Your task to perform on an android device: Open Reddit.com Image 0: 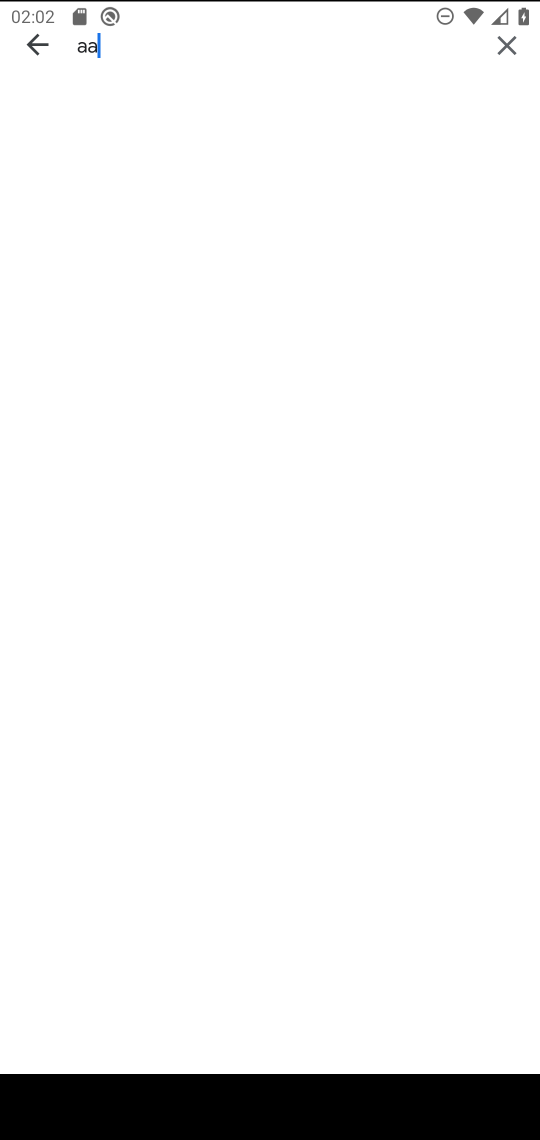
Step 0: press home button
Your task to perform on an android device: Open Reddit.com Image 1: 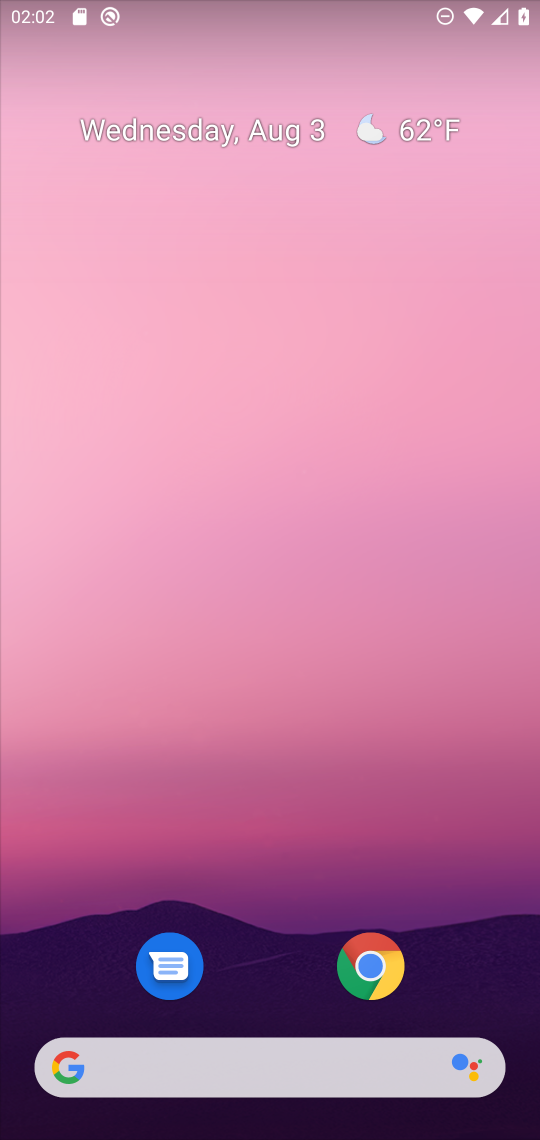
Step 1: click (370, 952)
Your task to perform on an android device: Open Reddit.com Image 2: 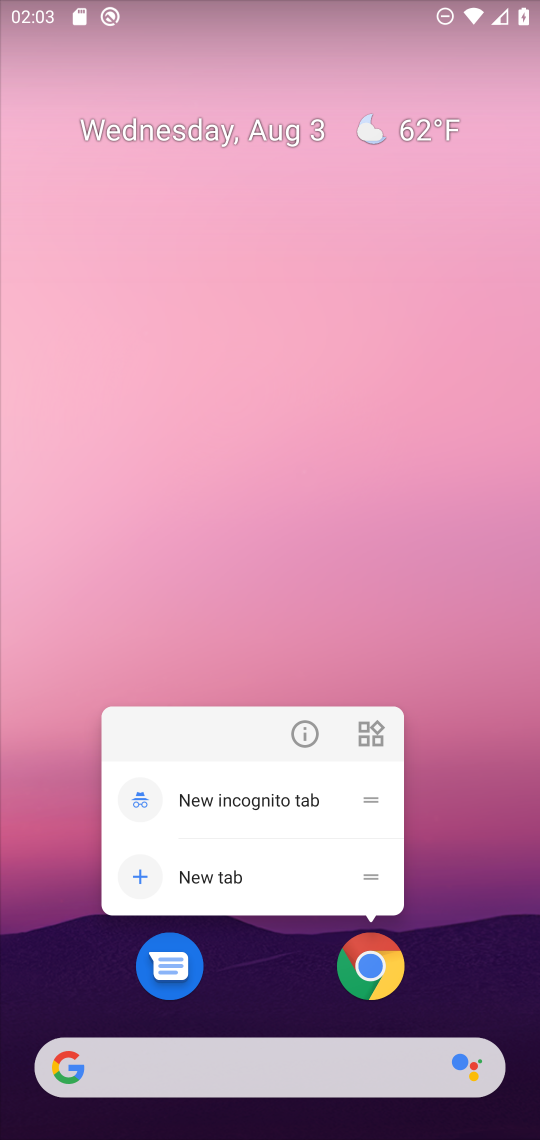
Step 2: click (376, 954)
Your task to perform on an android device: Open Reddit.com Image 3: 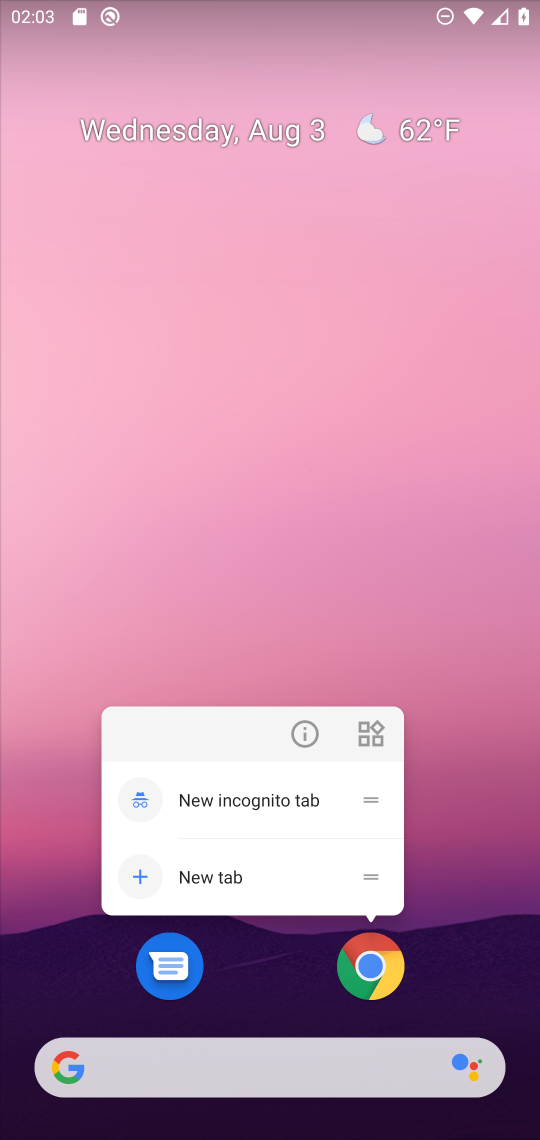
Step 3: click (376, 954)
Your task to perform on an android device: Open Reddit.com Image 4: 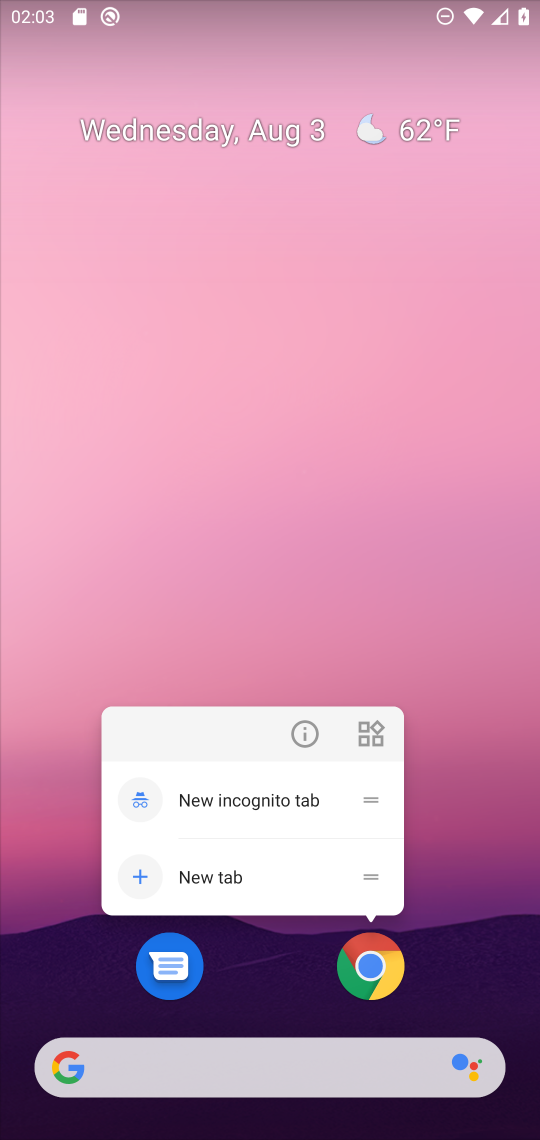
Step 4: click (376, 954)
Your task to perform on an android device: Open Reddit.com Image 5: 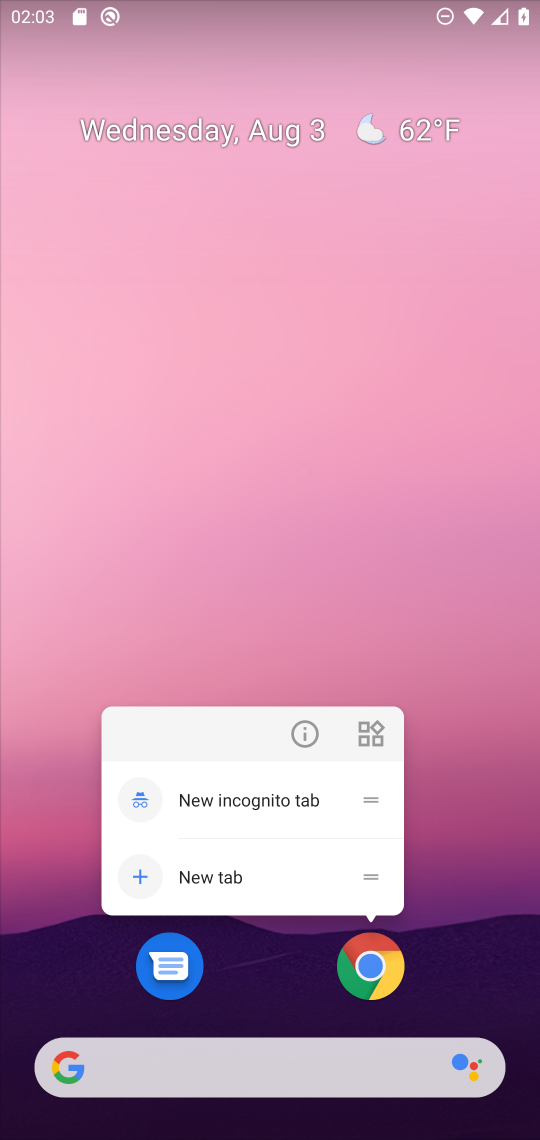
Step 5: click (376, 954)
Your task to perform on an android device: Open Reddit.com Image 6: 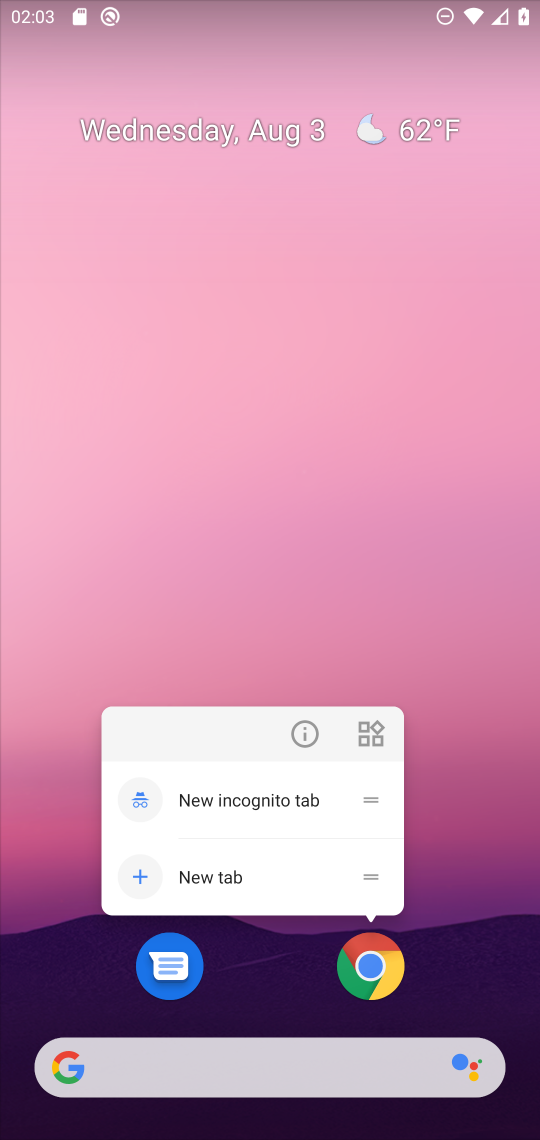
Step 6: click (376, 954)
Your task to perform on an android device: Open Reddit.com Image 7: 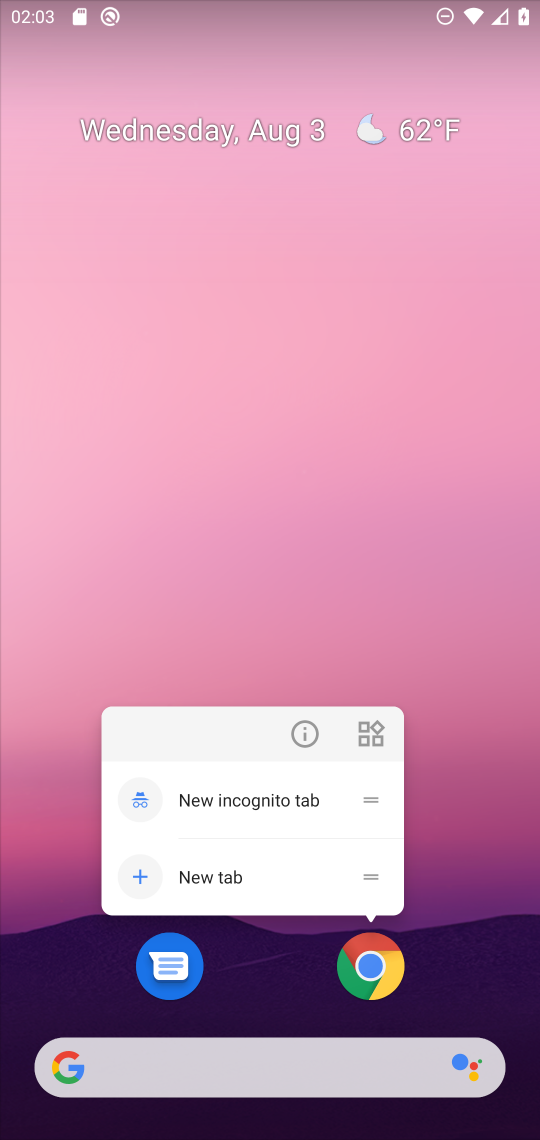
Step 7: click (365, 967)
Your task to perform on an android device: Open Reddit.com Image 8: 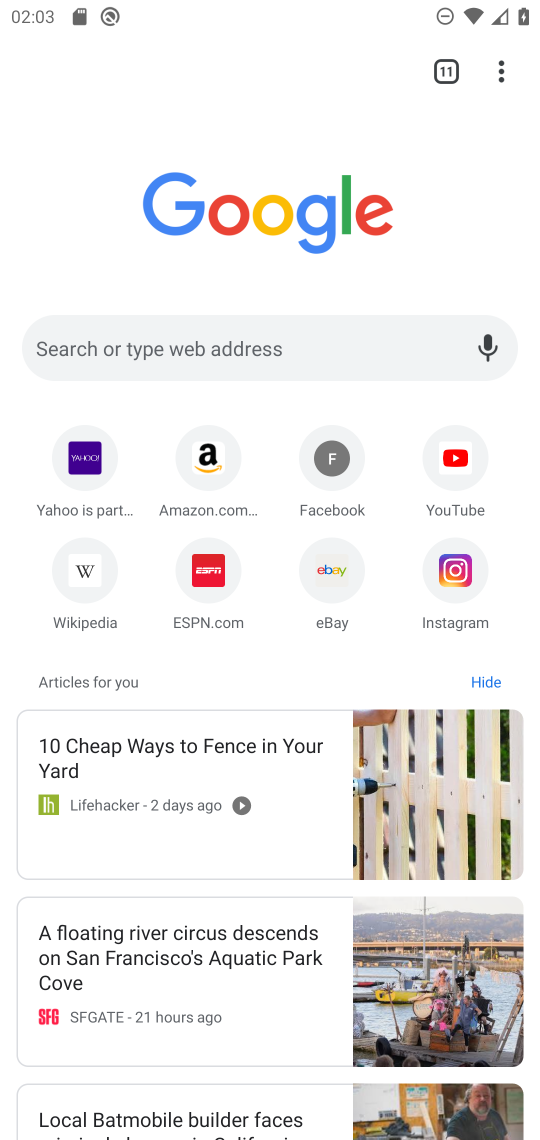
Step 8: click (365, 967)
Your task to perform on an android device: Open Reddit.com Image 9: 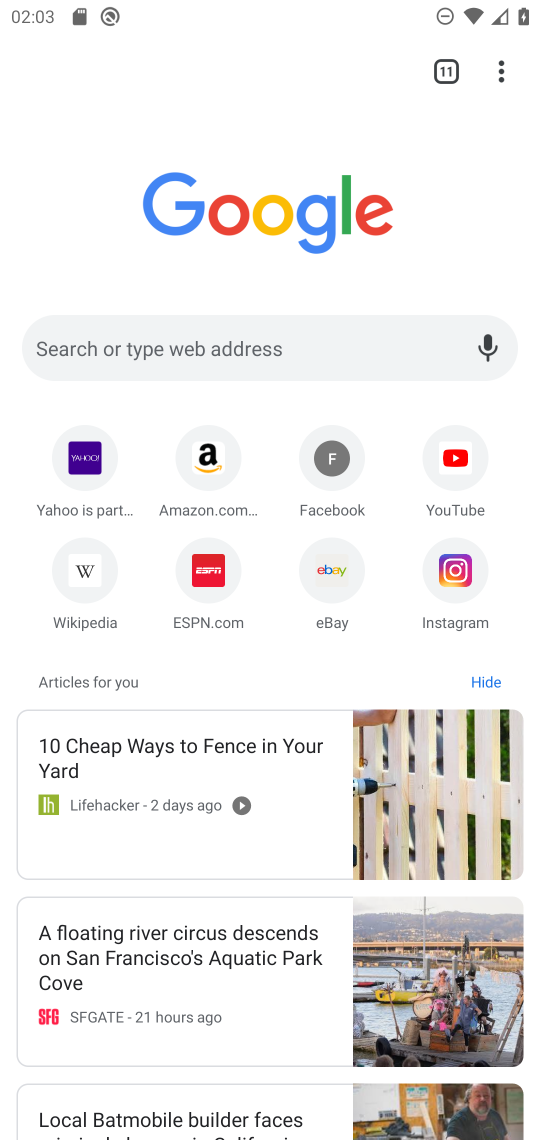
Step 9: click (336, 352)
Your task to perform on an android device: Open Reddit.com Image 10: 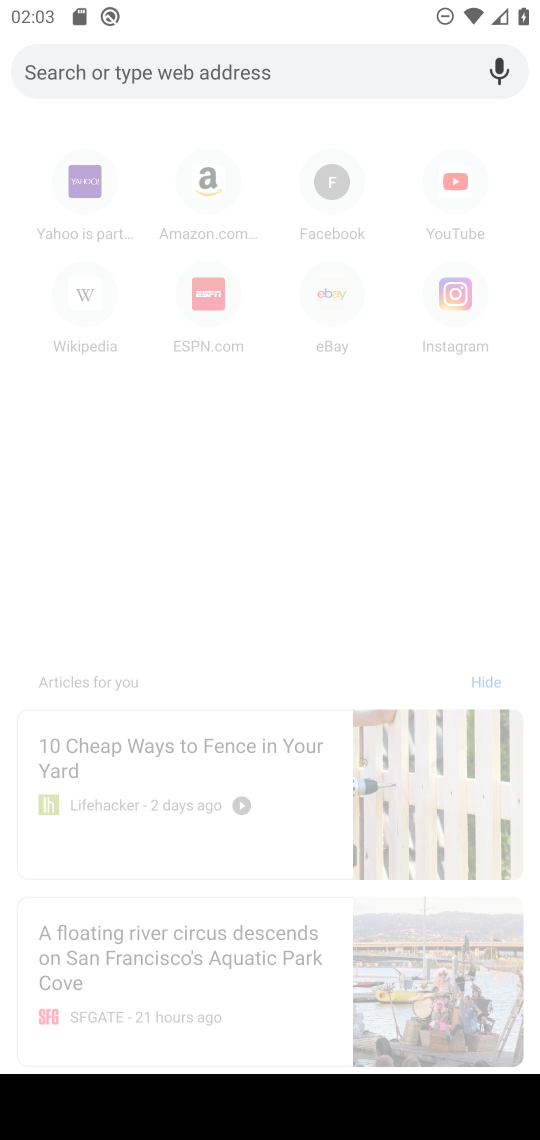
Step 10: type "Reddit.com"
Your task to perform on an android device: Open Reddit.com Image 11: 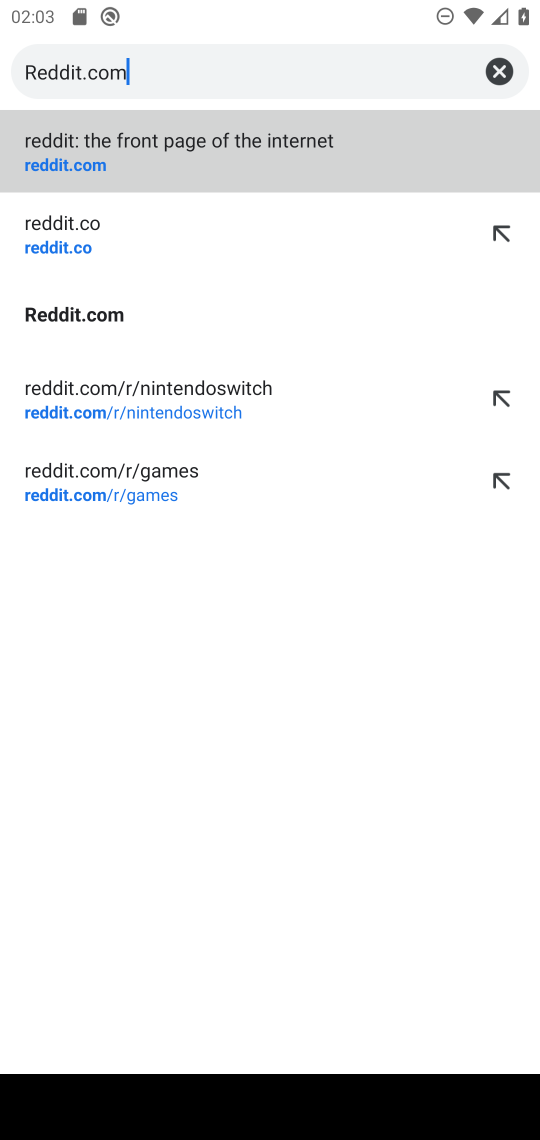
Step 11: type ""
Your task to perform on an android device: Open Reddit.com Image 12: 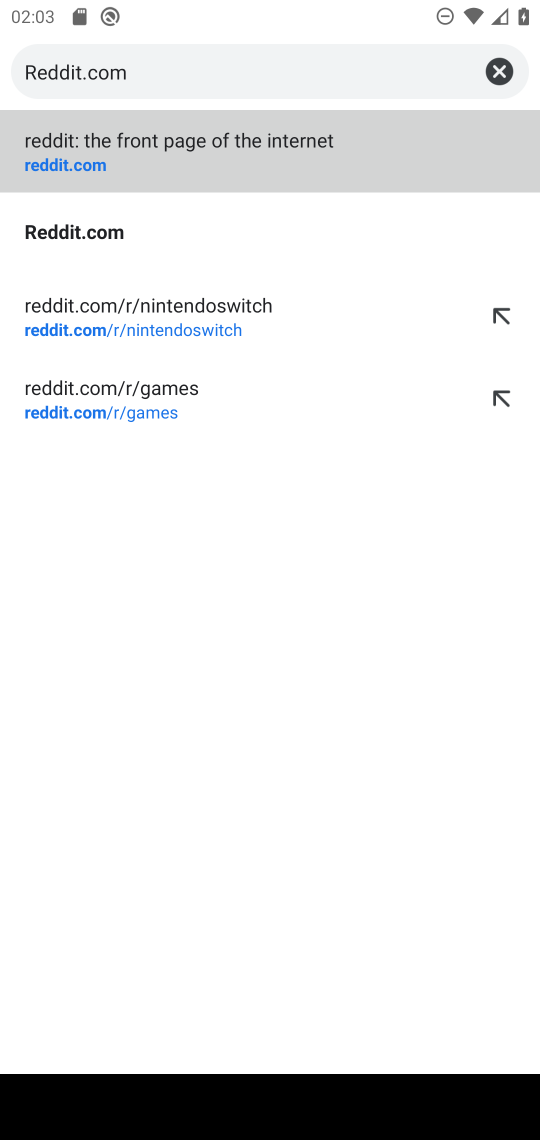
Step 12: click (225, 168)
Your task to perform on an android device: Open Reddit.com Image 13: 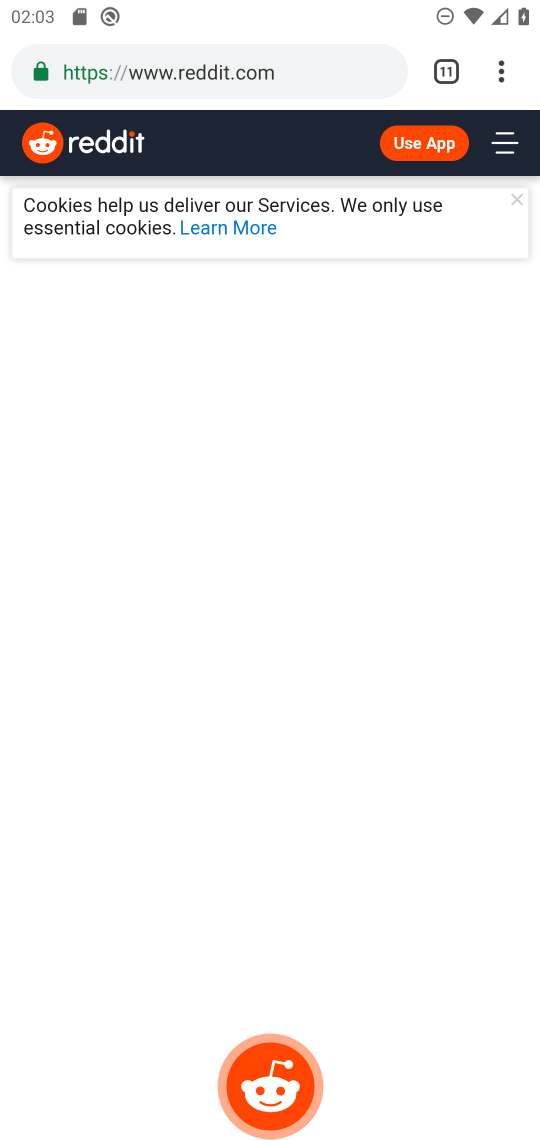
Step 13: task complete